Your task to perform on an android device: Open calendar and show me the third week of next month Image 0: 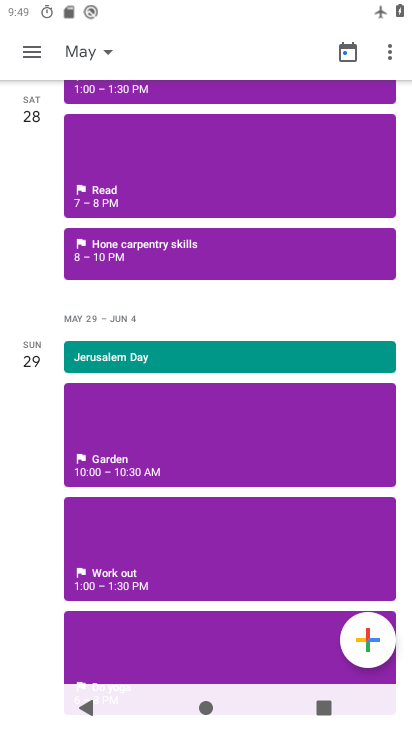
Step 0: press home button
Your task to perform on an android device: Open calendar and show me the third week of next month Image 1: 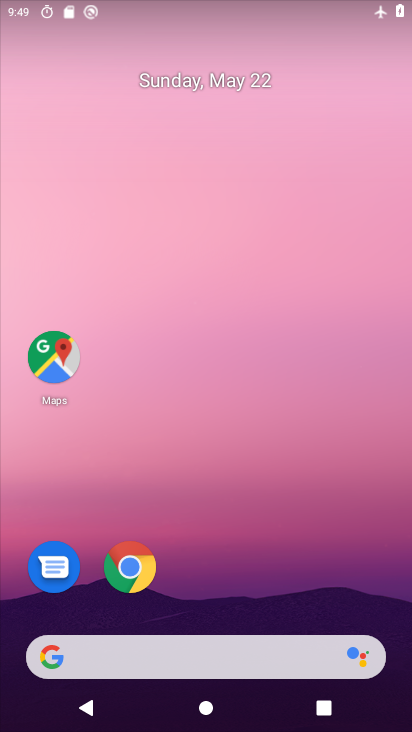
Step 1: drag from (202, 615) to (216, 33)
Your task to perform on an android device: Open calendar and show me the third week of next month Image 2: 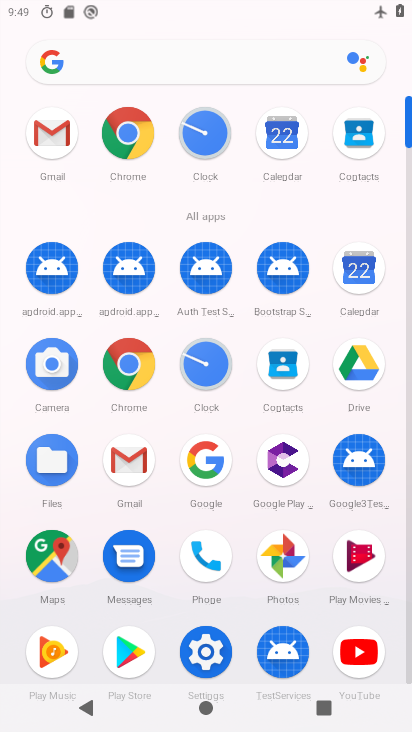
Step 2: click (359, 269)
Your task to perform on an android device: Open calendar and show me the third week of next month Image 3: 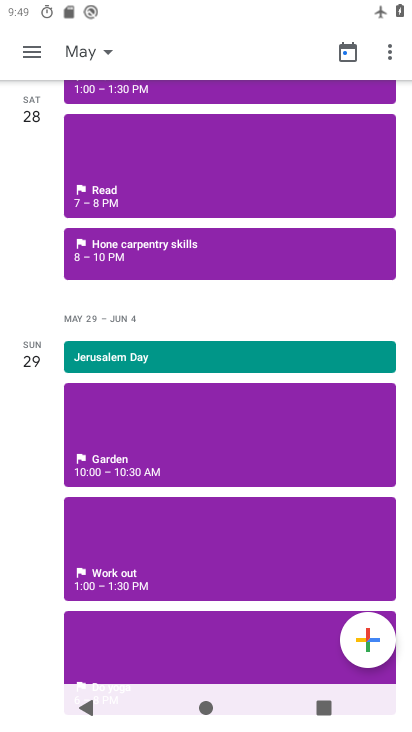
Step 3: click (31, 45)
Your task to perform on an android device: Open calendar and show me the third week of next month Image 4: 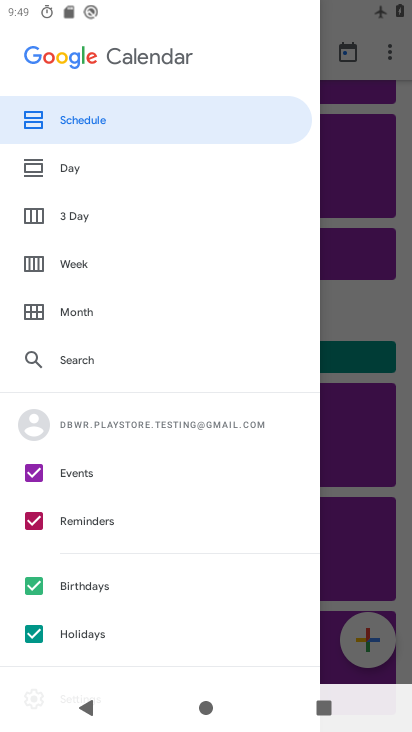
Step 4: click (56, 263)
Your task to perform on an android device: Open calendar and show me the third week of next month Image 5: 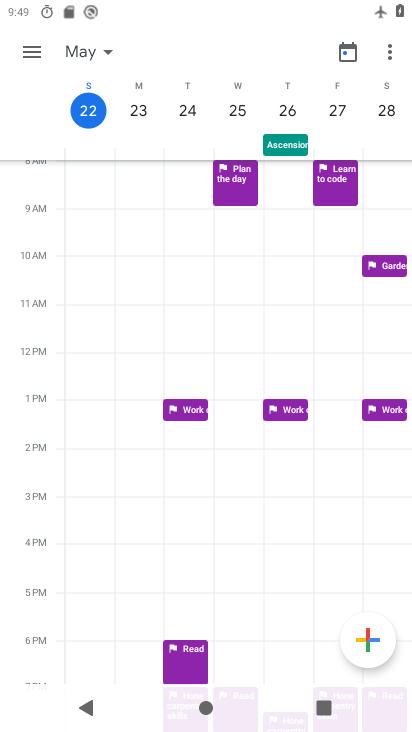
Step 5: drag from (379, 109) to (57, 130)
Your task to perform on an android device: Open calendar and show me the third week of next month Image 6: 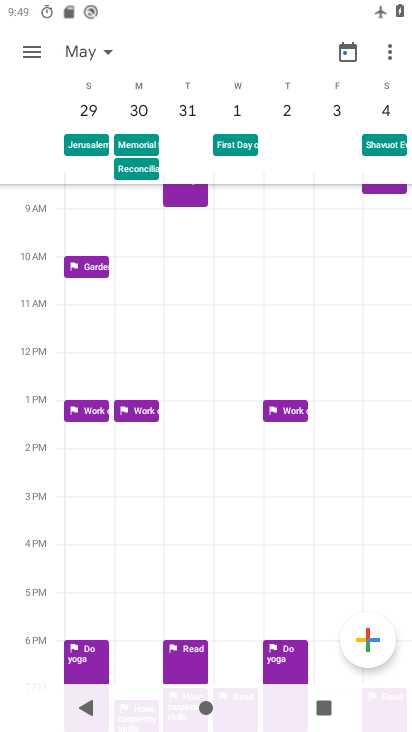
Step 6: click (87, 115)
Your task to perform on an android device: Open calendar and show me the third week of next month Image 7: 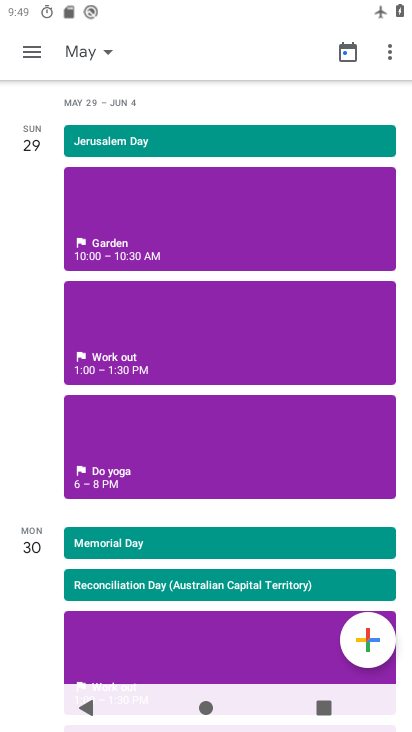
Step 7: click (101, 47)
Your task to perform on an android device: Open calendar and show me the third week of next month Image 8: 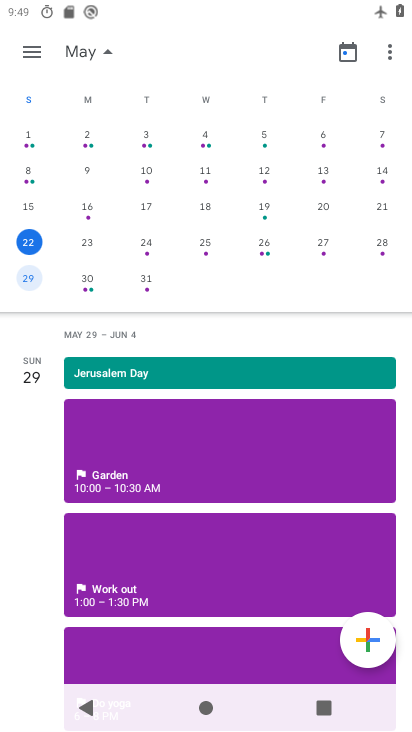
Step 8: drag from (353, 204) to (3, 195)
Your task to perform on an android device: Open calendar and show me the third week of next month Image 9: 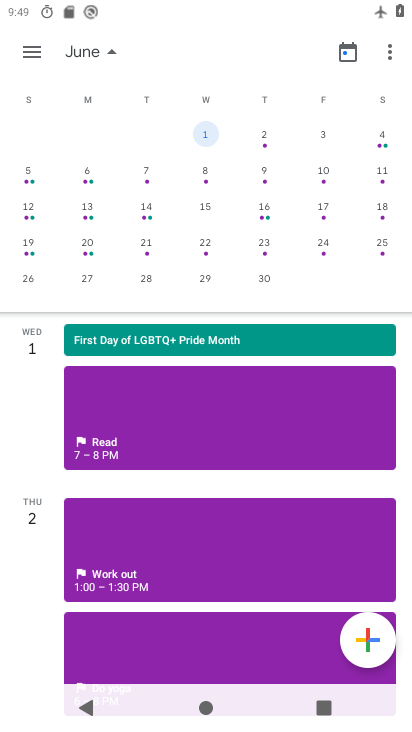
Step 9: click (35, 215)
Your task to perform on an android device: Open calendar and show me the third week of next month Image 10: 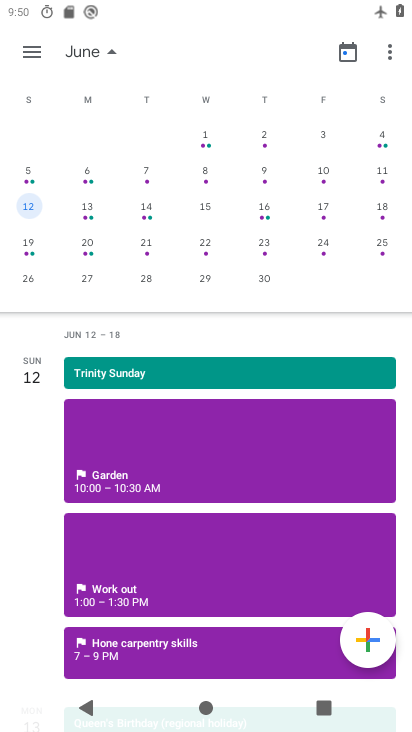
Step 10: click (107, 46)
Your task to perform on an android device: Open calendar and show me the third week of next month Image 11: 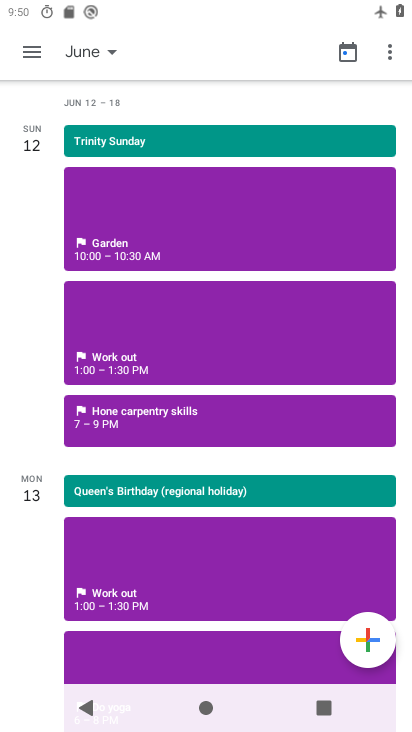
Step 11: task complete